Your task to perform on an android device: Open CNN.com Image 0: 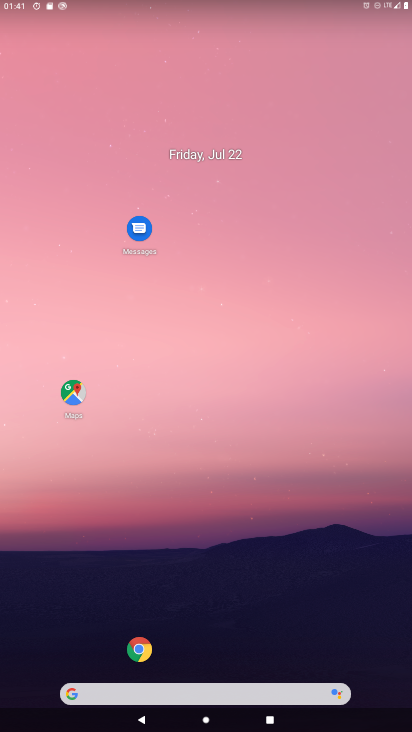
Step 0: click (101, 689)
Your task to perform on an android device: Open CNN.com Image 1: 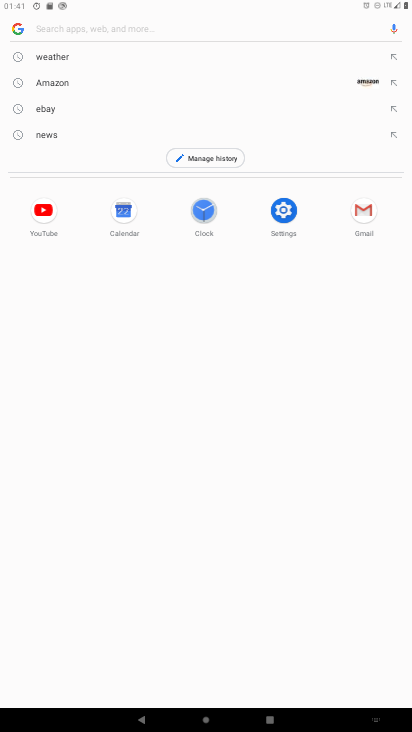
Step 1: type "CNN.com"
Your task to perform on an android device: Open CNN.com Image 2: 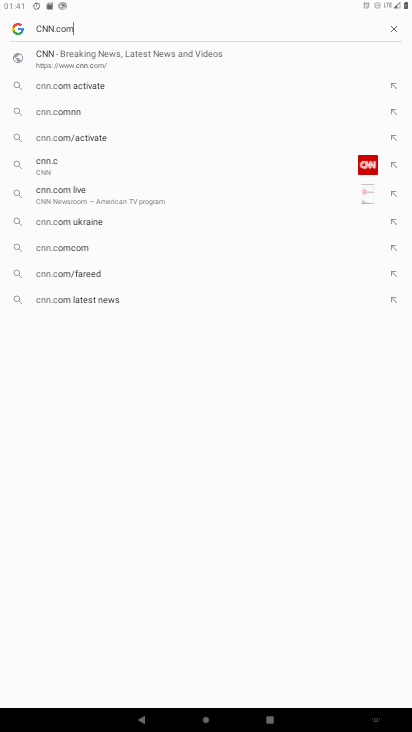
Step 2: type ""
Your task to perform on an android device: Open CNN.com Image 3: 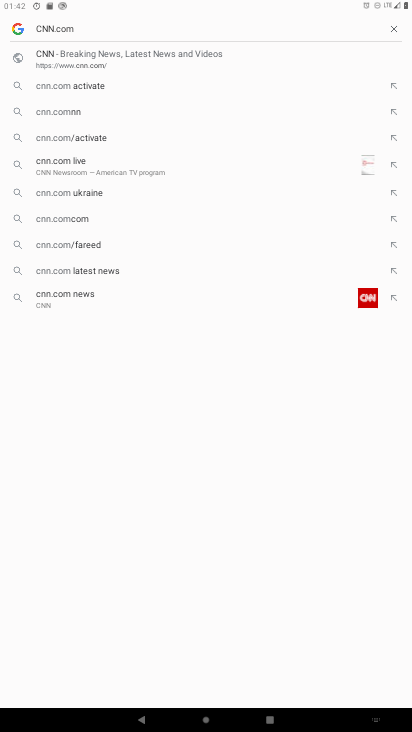
Step 3: click (87, 55)
Your task to perform on an android device: Open CNN.com Image 4: 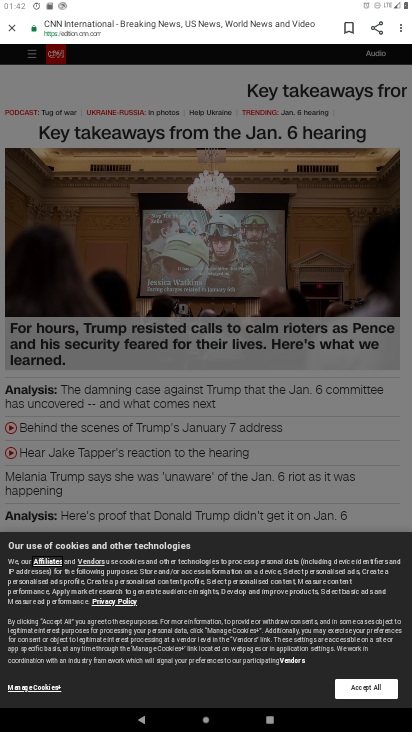
Step 4: task complete